Your task to perform on an android device: Go to Google Image 0: 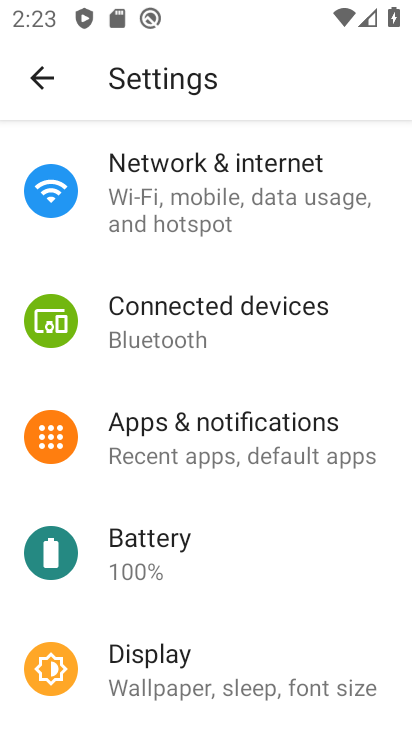
Step 0: press home button
Your task to perform on an android device: Go to Google Image 1: 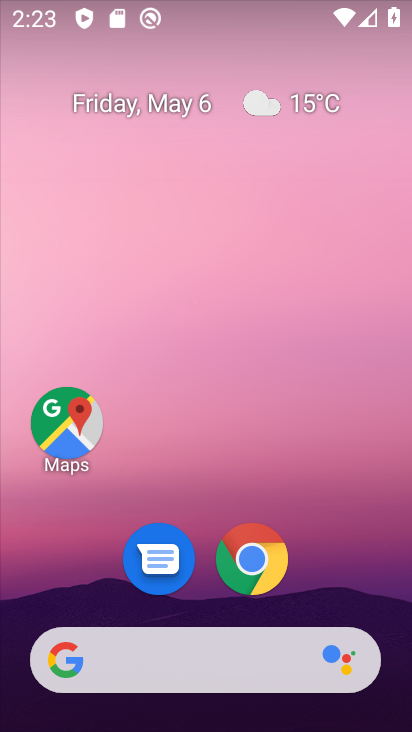
Step 1: drag from (354, 551) to (327, 88)
Your task to perform on an android device: Go to Google Image 2: 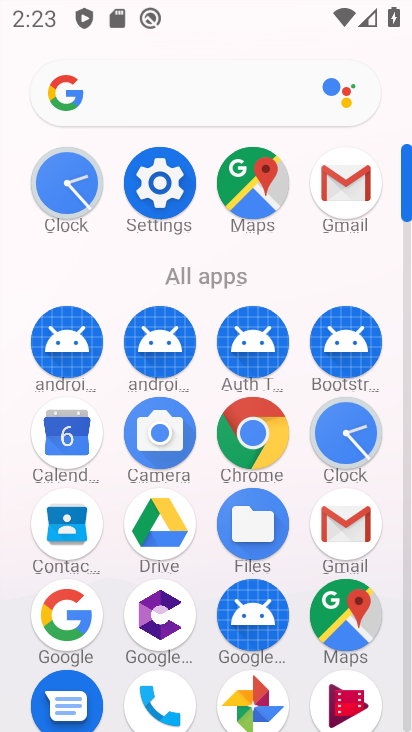
Step 2: click (269, 420)
Your task to perform on an android device: Go to Google Image 3: 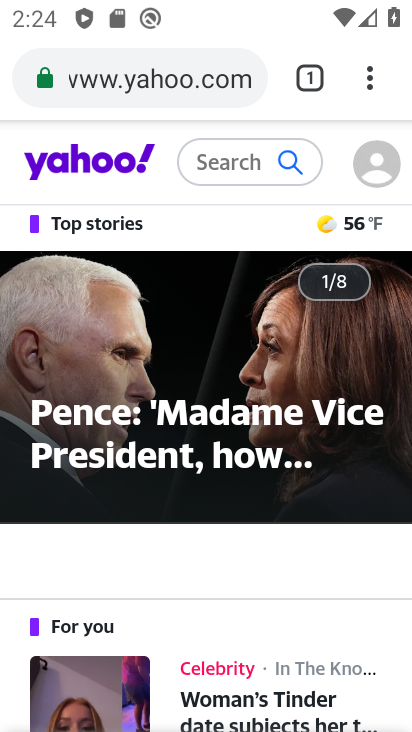
Step 3: click (211, 97)
Your task to perform on an android device: Go to Google Image 4: 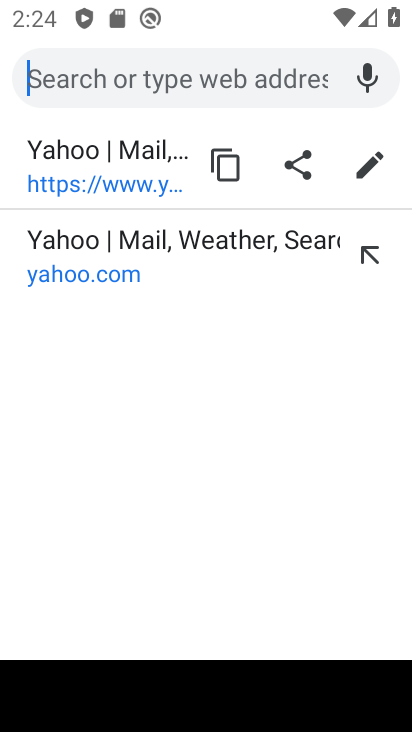
Step 4: type "google.com"
Your task to perform on an android device: Go to Google Image 5: 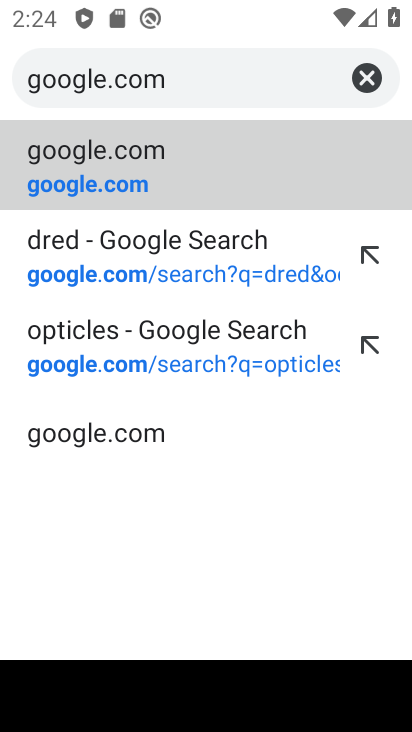
Step 5: click (73, 185)
Your task to perform on an android device: Go to Google Image 6: 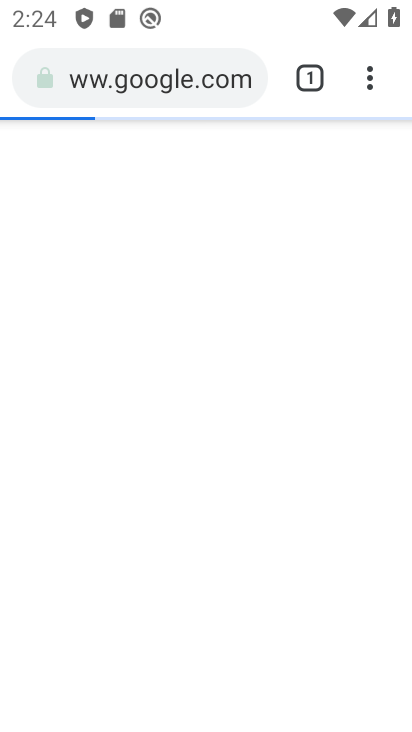
Step 6: task complete